Your task to perform on an android device: turn on the 12-hour format for clock Image 0: 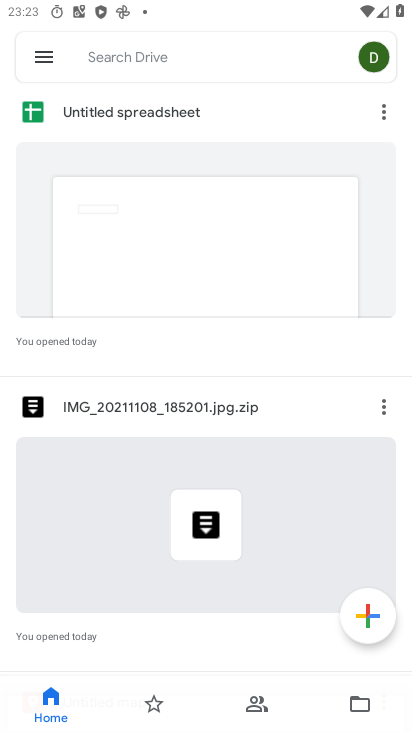
Step 0: press home button
Your task to perform on an android device: turn on the 12-hour format for clock Image 1: 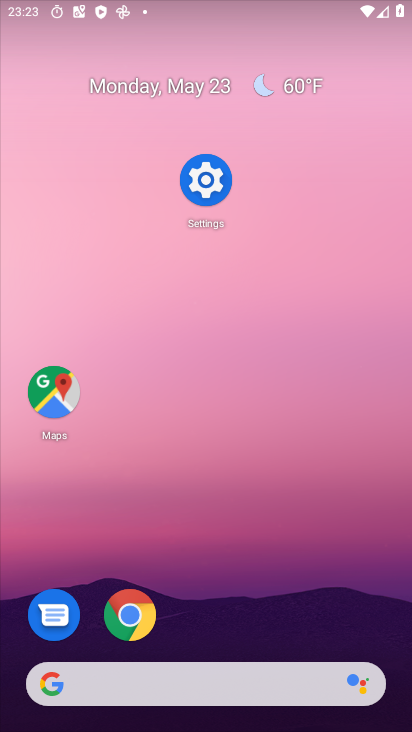
Step 1: drag from (246, 633) to (233, 101)
Your task to perform on an android device: turn on the 12-hour format for clock Image 2: 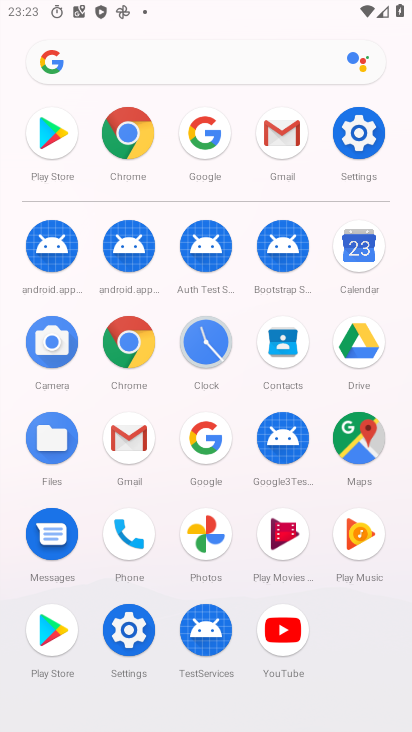
Step 2: click (208, 337)
Your task to perform on an android device: turn on the 12-hour format for clock Image 3: 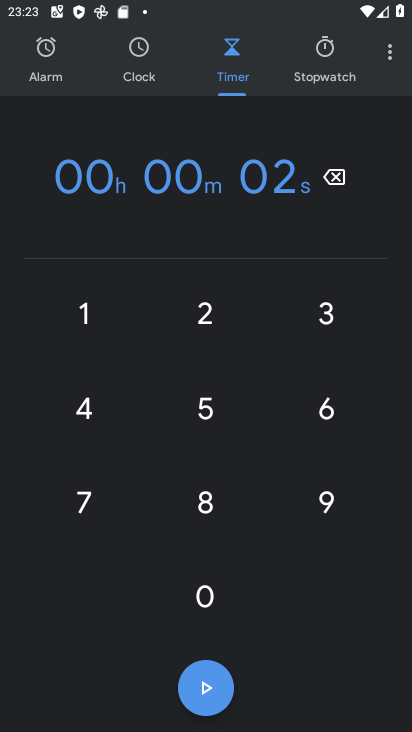
Step 3: click (384, 56)
Your task to perform on an android device: turn on the 12-hour format for clock Image 4: 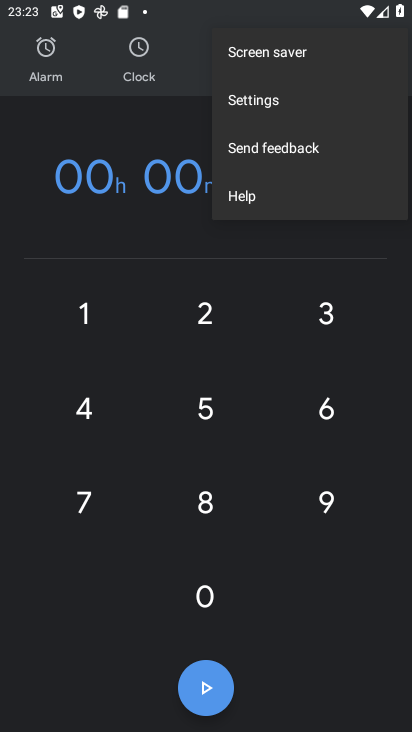
Step 4: click (260, 92)
Your task to perform on an android device: turn on the 12-hour format for clock Image 5: 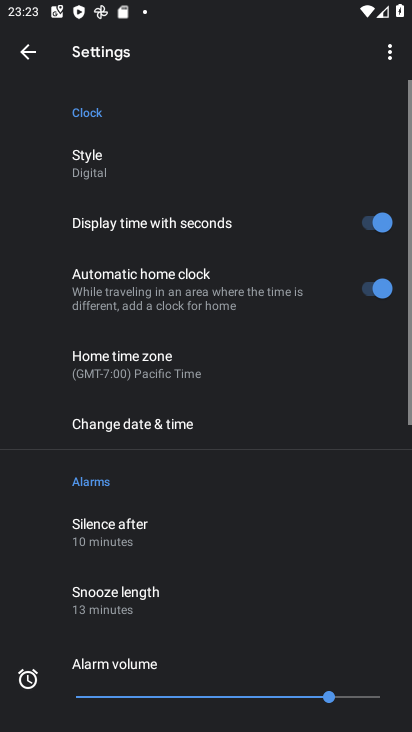
Step 5: drag from (218, 617) to (235, 481)
Your task to perform on an android device: turn on the 12-hour format for clock Image 6: 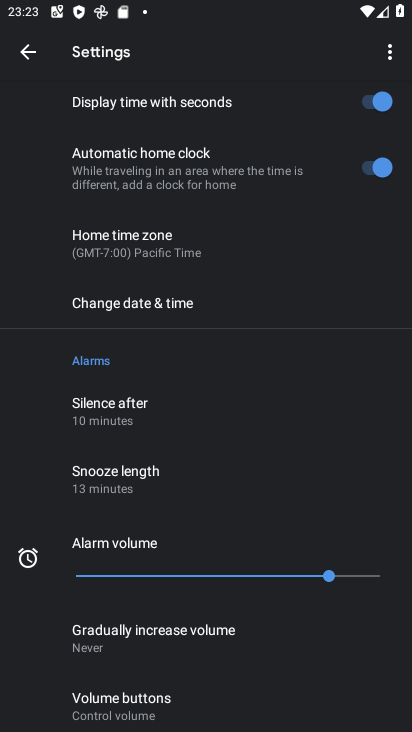
Step 6: click (158, 298)
Your task to perform on an android device: turn on the 12-hour format for clock Image 7: 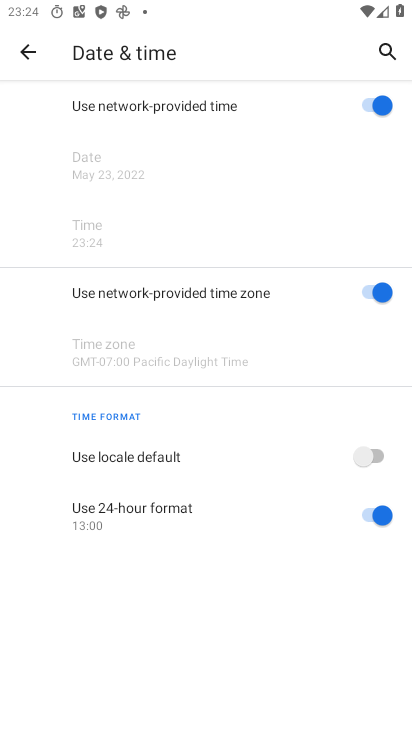
Step 7: click (372, 459)
Your task to perform on an android device: turn on the 12-hour format for clock Image 8: 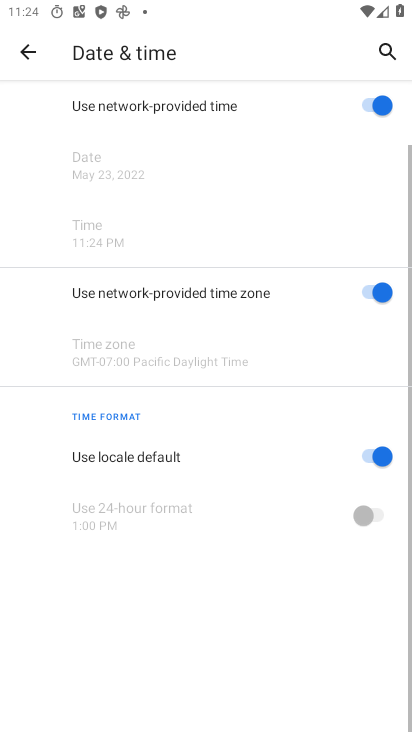
Step 8: click (382, 514)
Your task to perform on an android device: turn on the 12-hour format for clock Image 9: 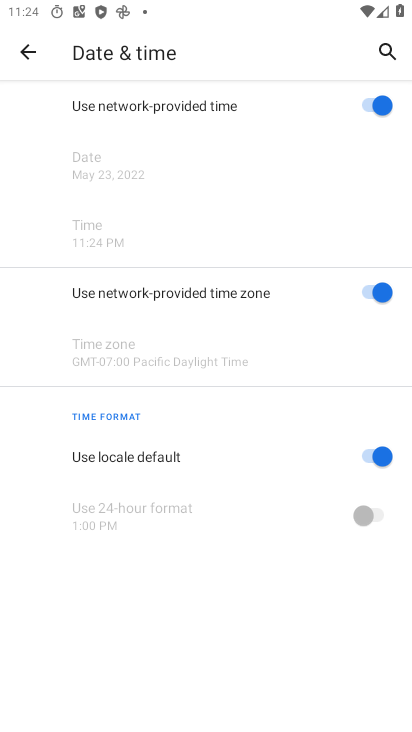
Step 9: task complete